Your task to perform on an android device: Search for Mexican restaurants on Maps Image 0: 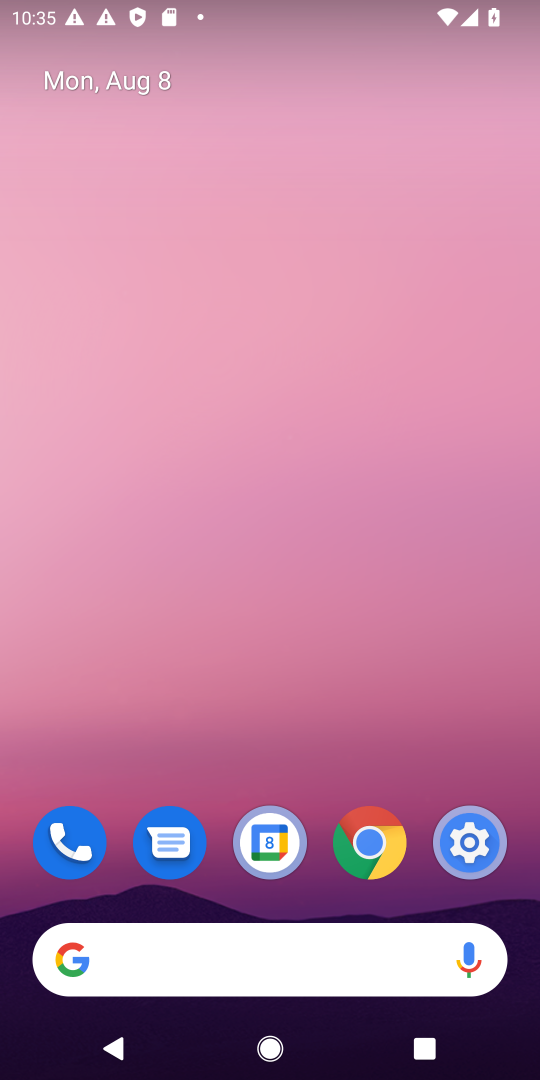
Step 0: drag from (427, 803) to (394, 489)
Your task to perform on an android device: Search for Mexican restaurants on Maps Image 1: 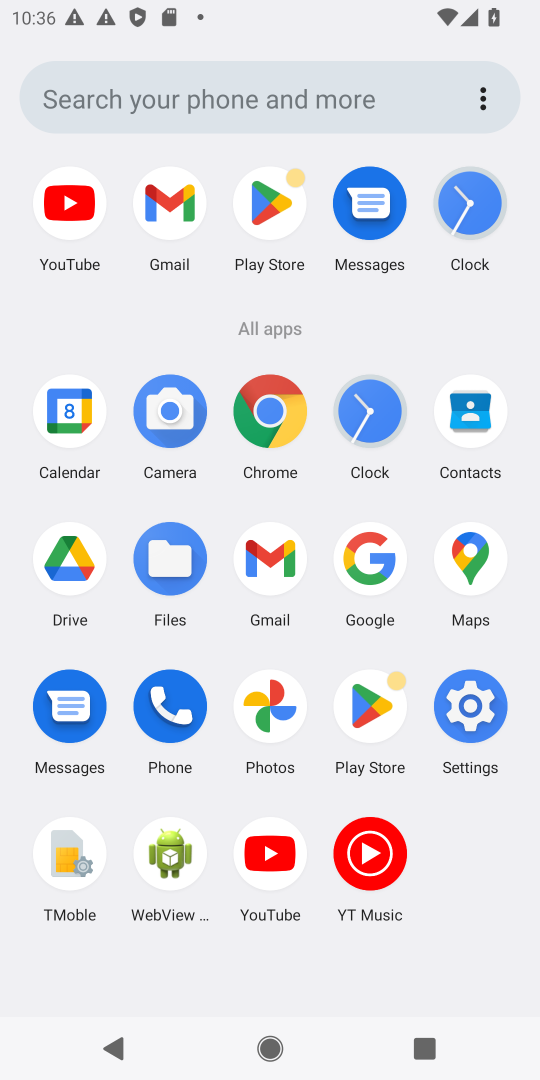
Step 1: click (474, 551)
Your task to perform on an android device: Search for Mexican restaurants on Maps Image 2: 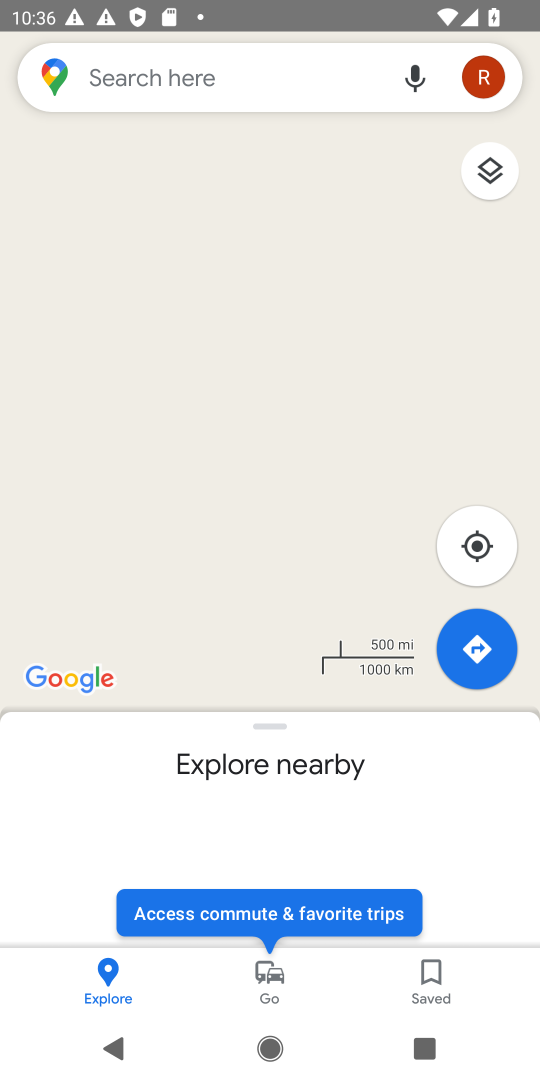
Step 2: click (203, 64)
Your task to perform on an android device: Search for Mexican restaurants on Maps Image 3: 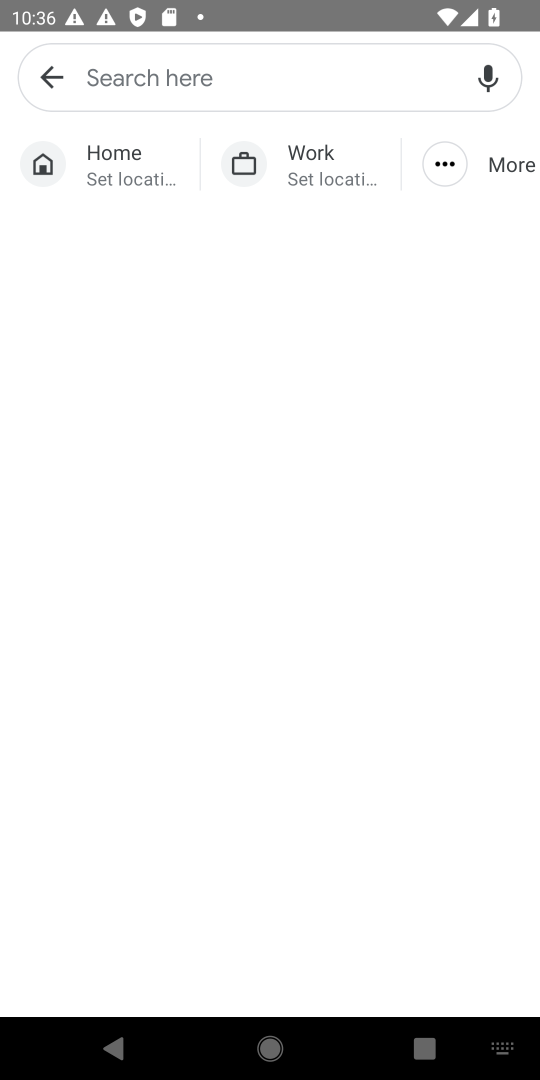
Step 3: type "mexican restaurants"
Your task to perform on an android device: Search for Mexican restaurants on Maps Image 4: 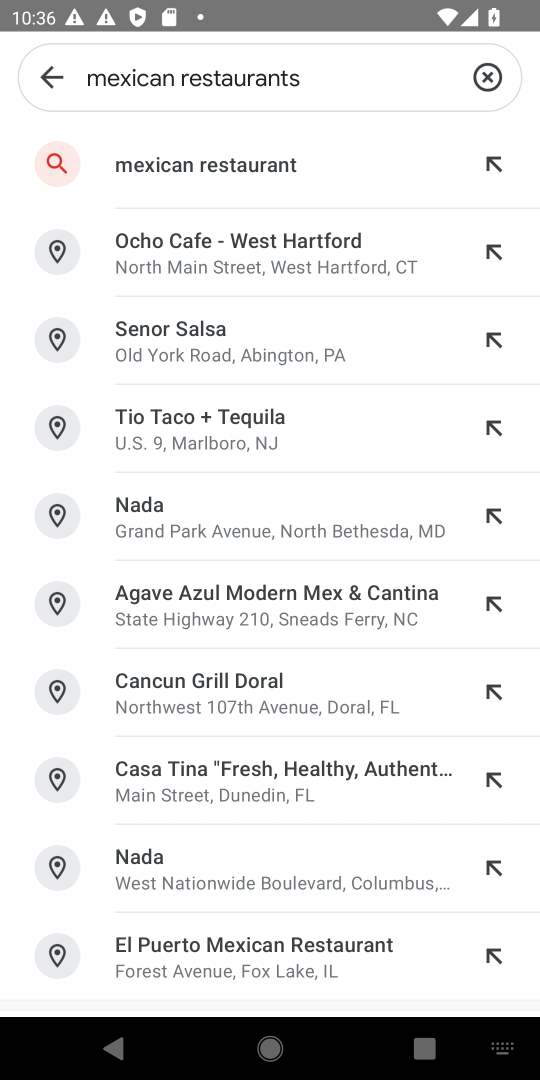
Step 4: click (237, 165)
Your task to perform on an android device: Search for Mexican restaurants on Maps Image 5: 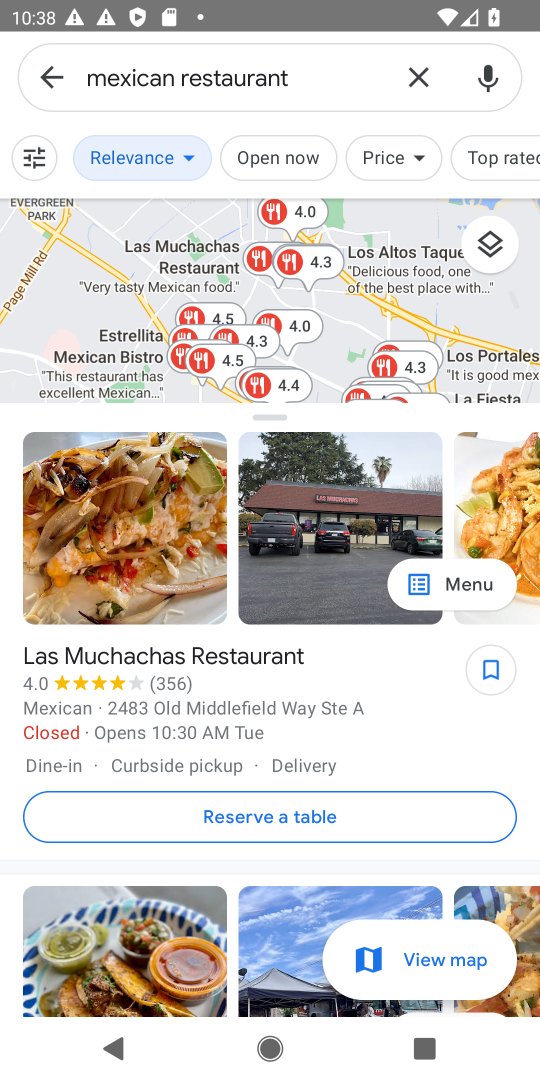
Step 5: task complete